Your task to perform on an android device: Find coffee shops on Maps Image 0: 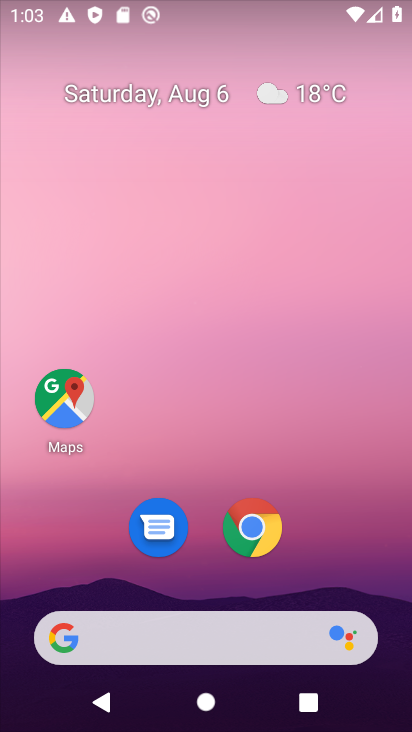
Step 0: drag from (198, 518) to (279, 154)
Your task to perform on an android device: Find coffee shops on Maps Image 1: 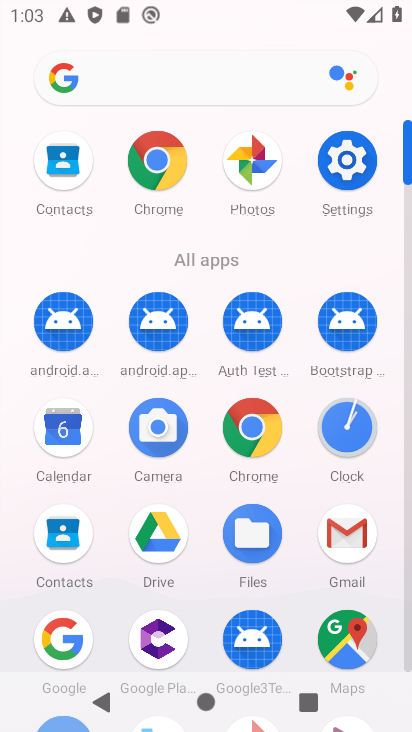
Step 1: click (367, 639)
Your task to perform on an android device: Find coffee shops on Maps Image 2: 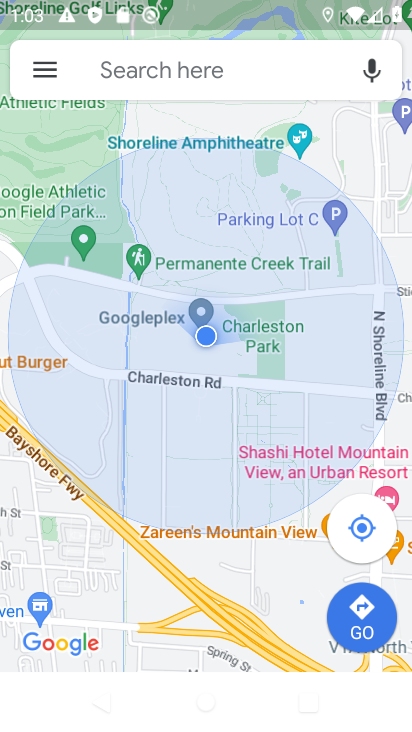
Step 2: click (233, 62)
Your task to perform on an android device: Find coffee shops on Maps Image 3: 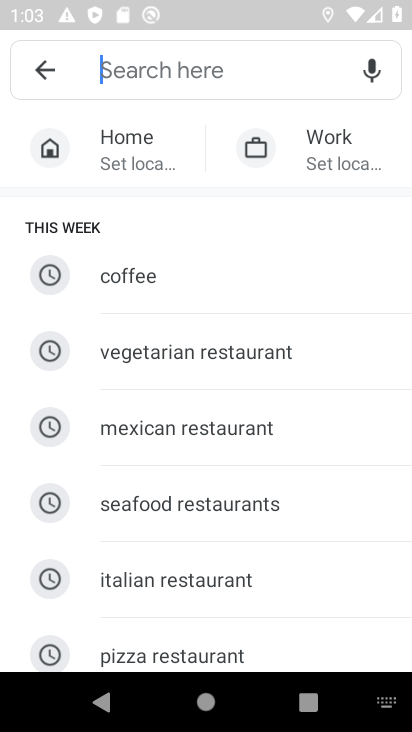
Step 3: click (204, 294)
Your task to perform on an android device: Find coffee shops on Maps Image 4: 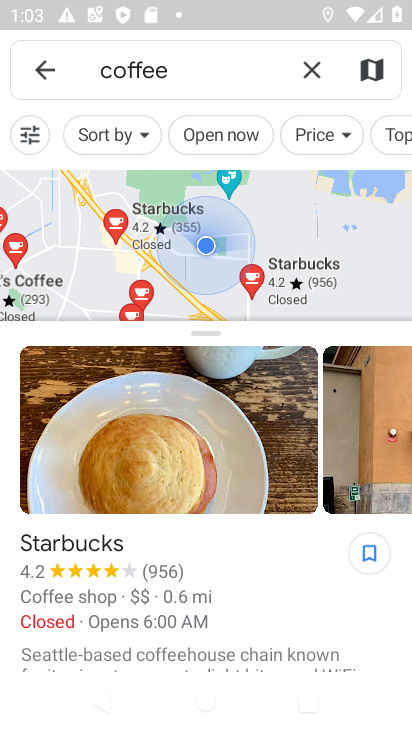
Step 4: task complete